Your task to perform on an android device: open app "Google Keep" (install if not already installed) Image 0: 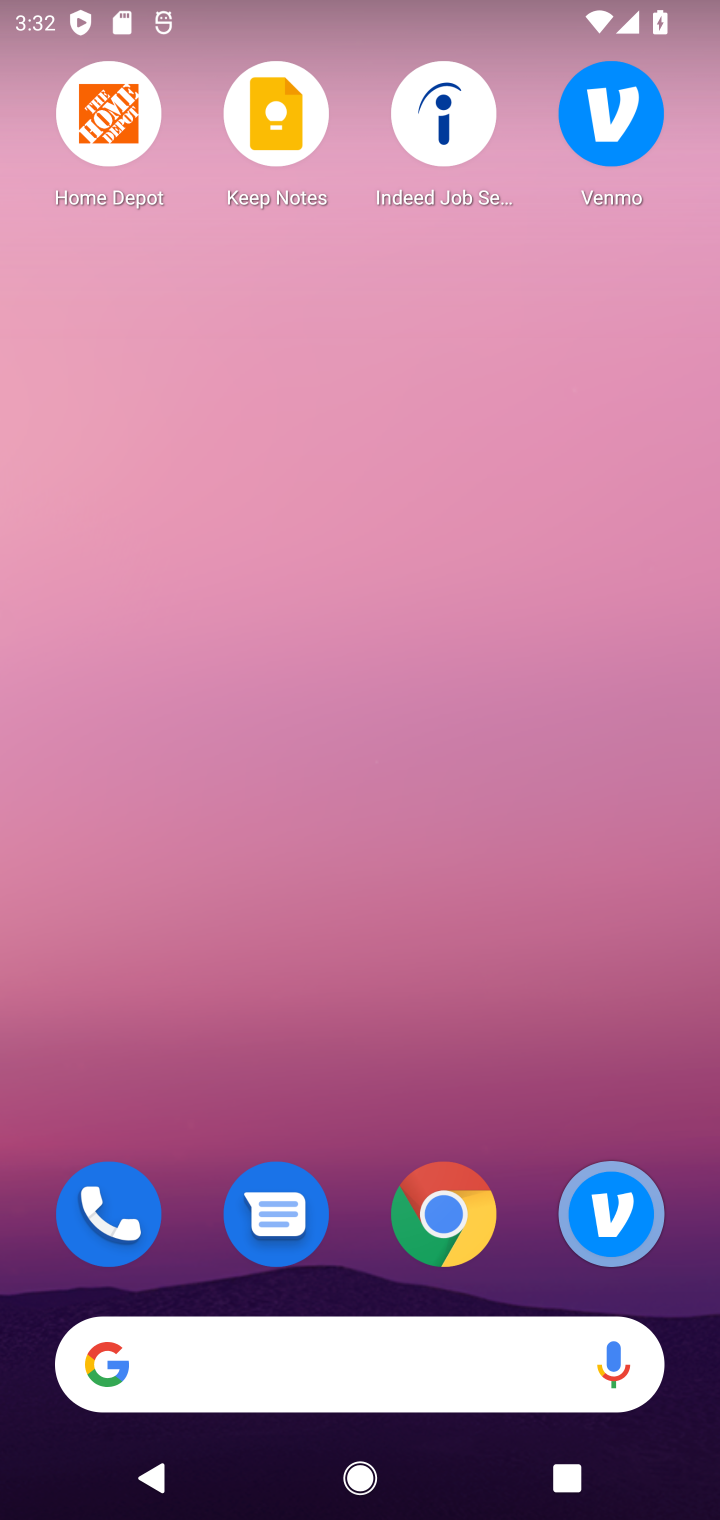
Step 0: drag from (443, 1099) to (483, 2)
Your task to perform on an android device: open app "Google Keep" (install if not already installed) Image 1: 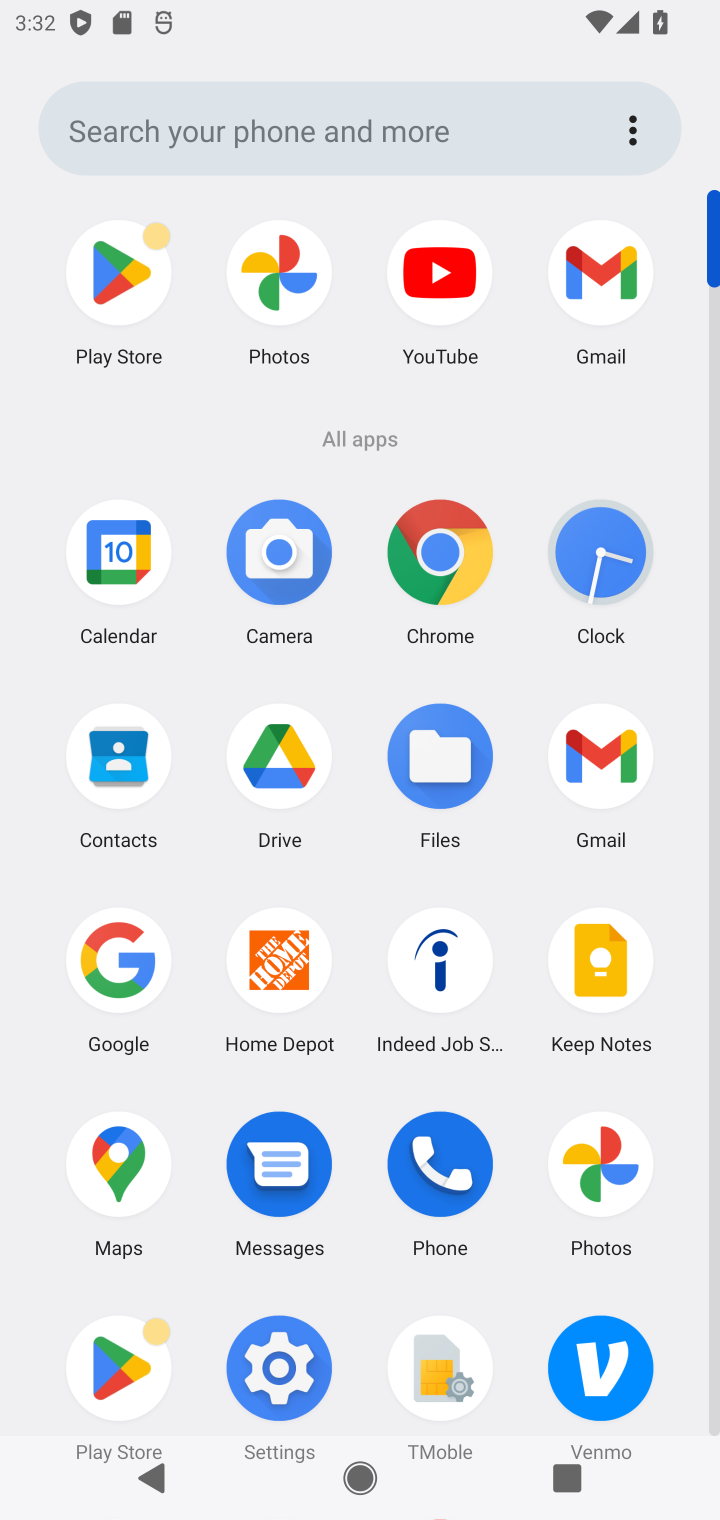
Step 1: click (155, 1367)
Your task to perform on an android device: open app "Google Keep" (install if not already installed) Image 2: 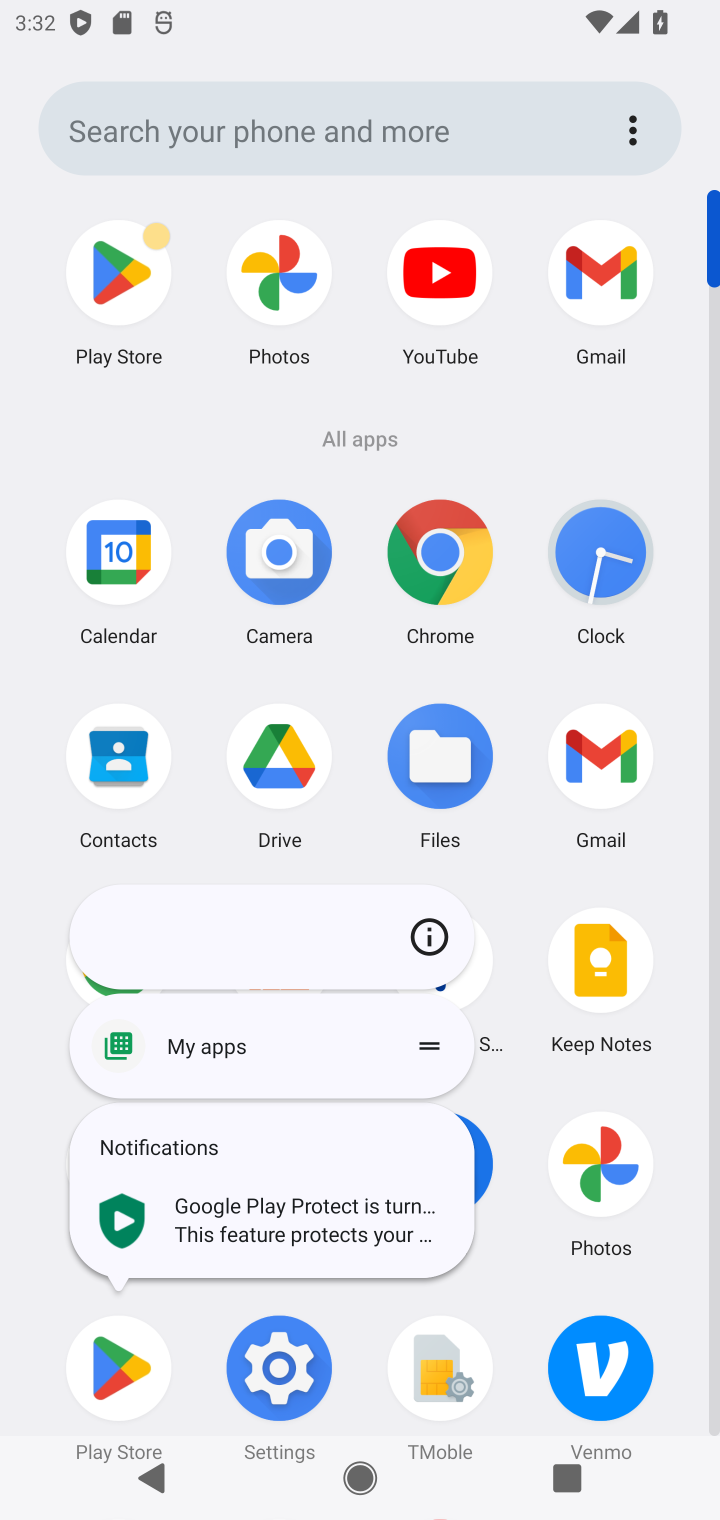
Step 2: click (117, 1387)
Your task to perform on an android device: open app "Google Keep" (install if not already installed) Image 3: 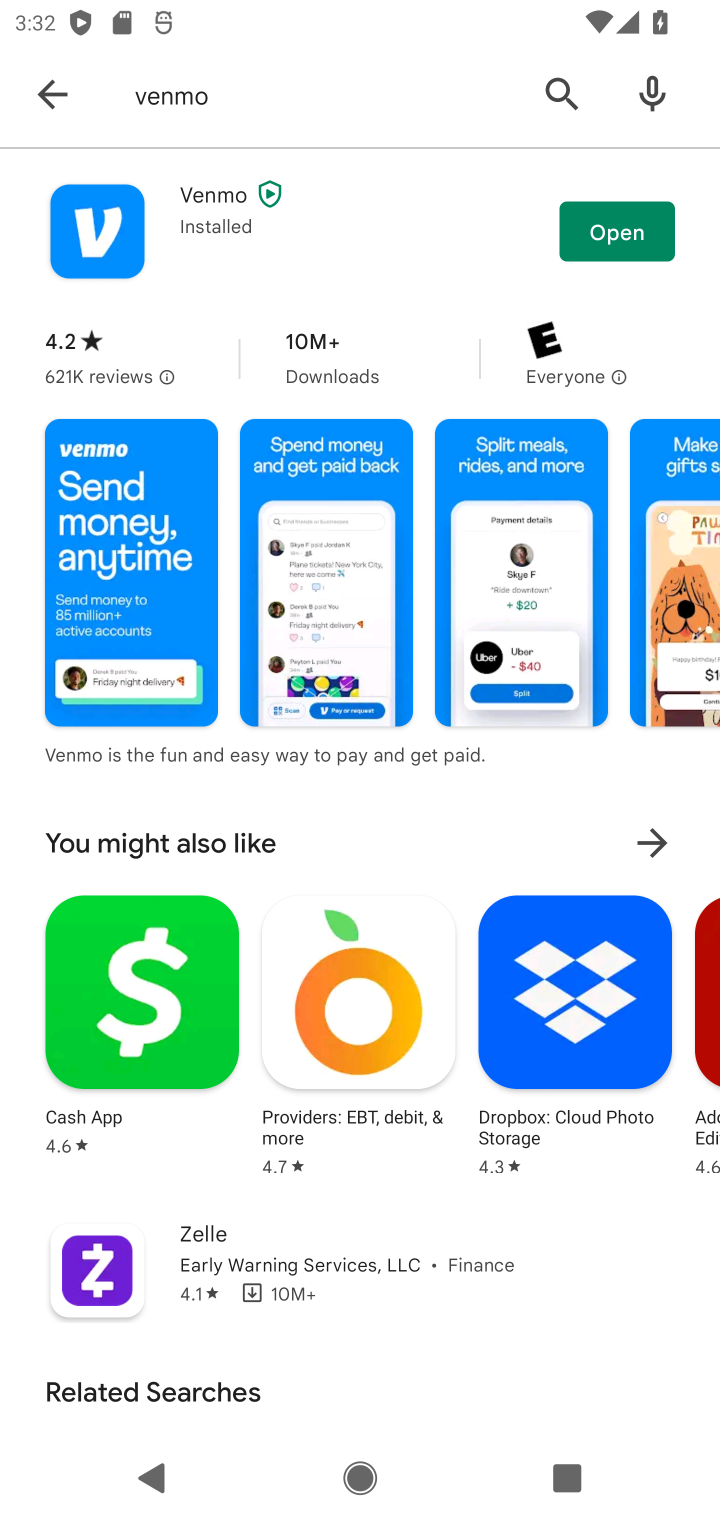
Step 3: click (400, 102)
Your task to perform on an android device: open app "Google Keep" (install if not already installed) Image 4: 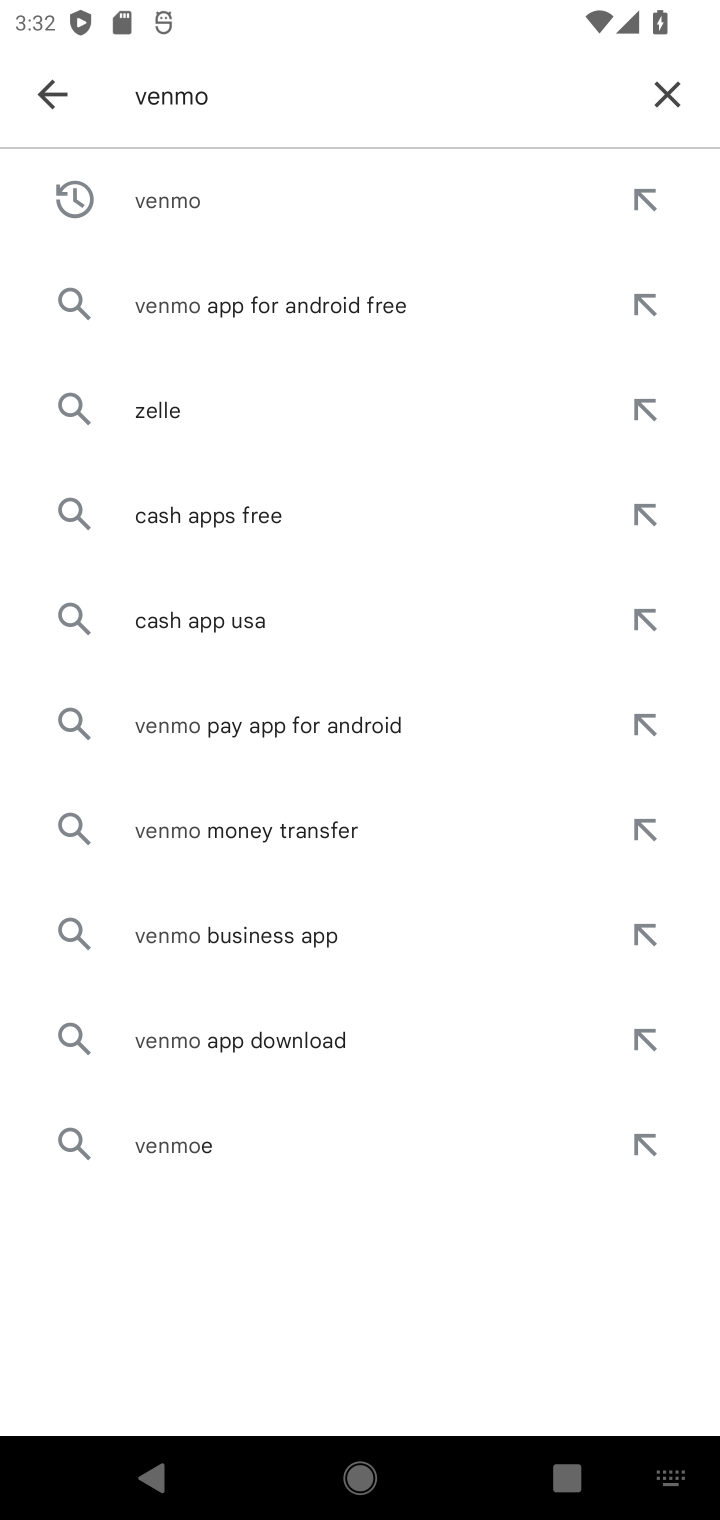
Step 4: click (667, 83)
Your task to perform on an android device: open app "Google Keep" (install if not already installed) Image 5: 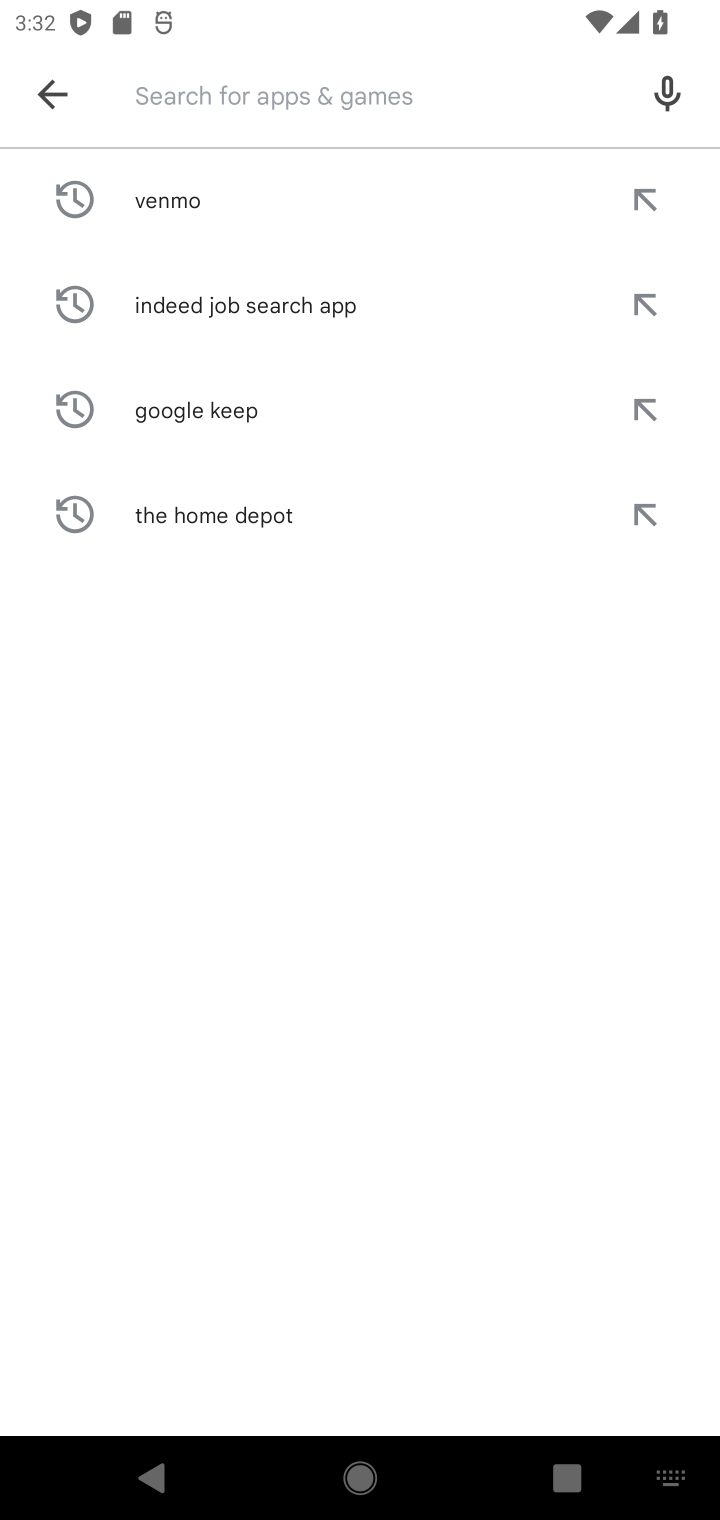
Step 5: click (454, 380)
Your task to perform on an android device: open app "Google Keep" (install if not already installed) Image 6: 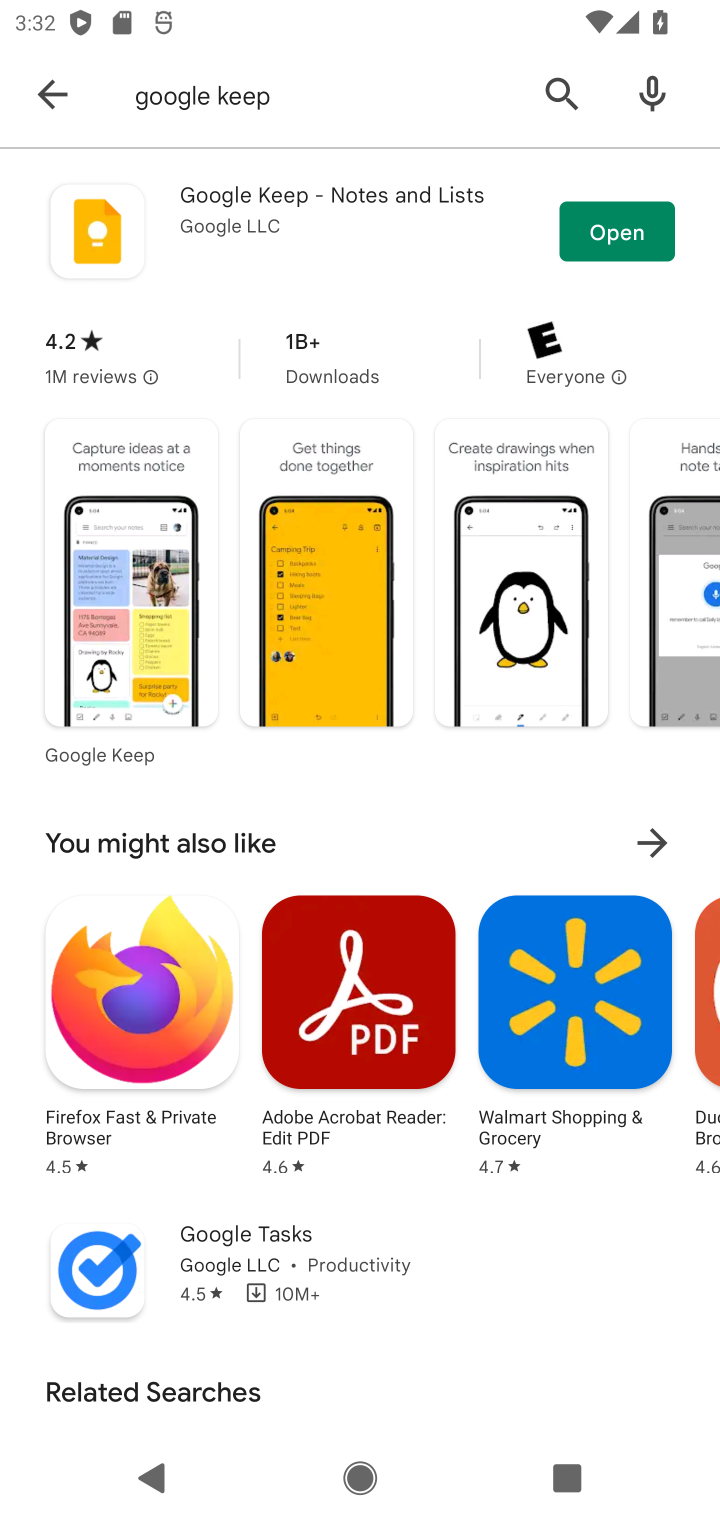
Step 6: click (593, 232)
Your task to perform on an android device: open app "Google Keep" (install if not already installed) Image 7: 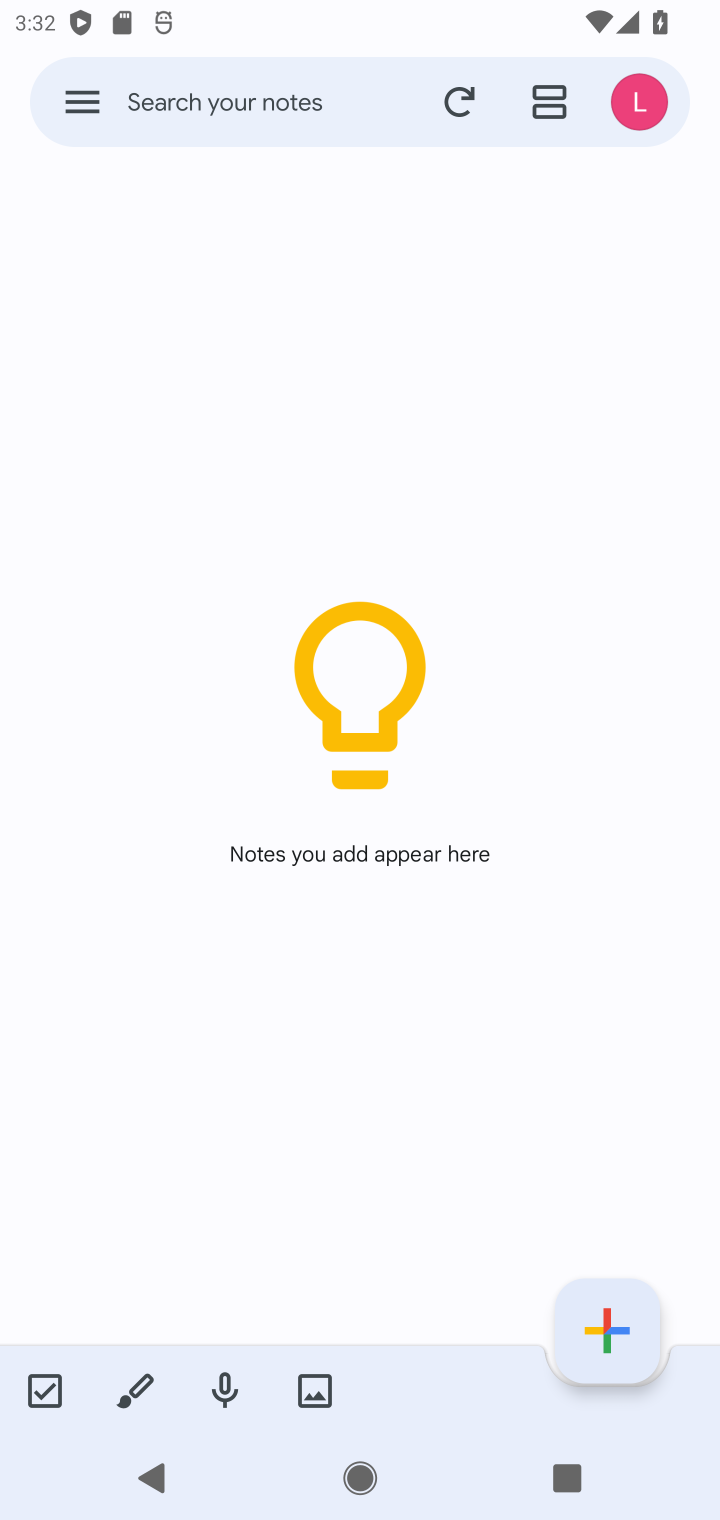
Step 7: task complete